Your task to perform on an android device: Go to sound settings Image 0: 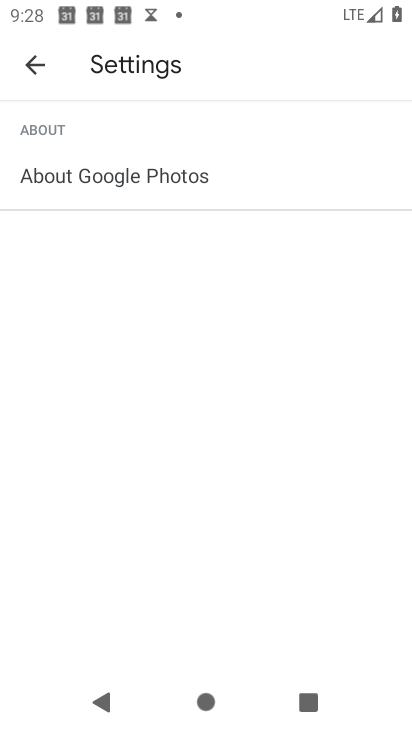
Step 0: press home button
Your task to perform on an android device: Go to sound settings Image 1: 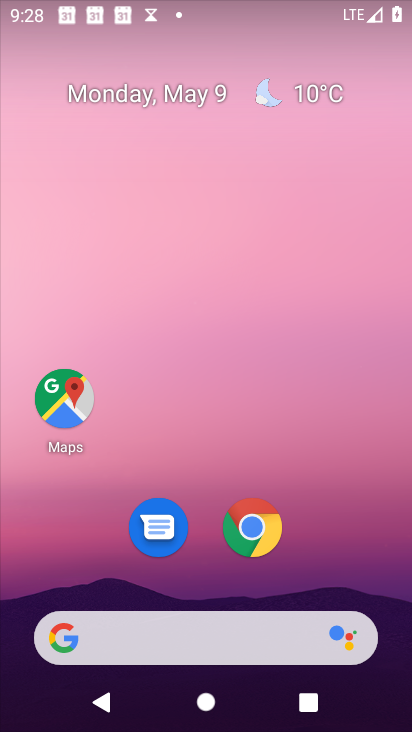
Step 1: drag from (198, 581) to (261, 58)
Your task to perform on an android device: Go to sound settings Image 2: 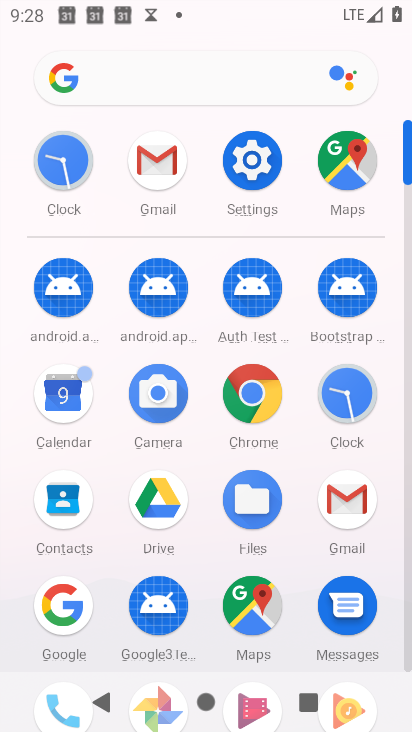
Step 2: click (248, 177)
Your task to perform on an android device: Go to sound settings Image 3: 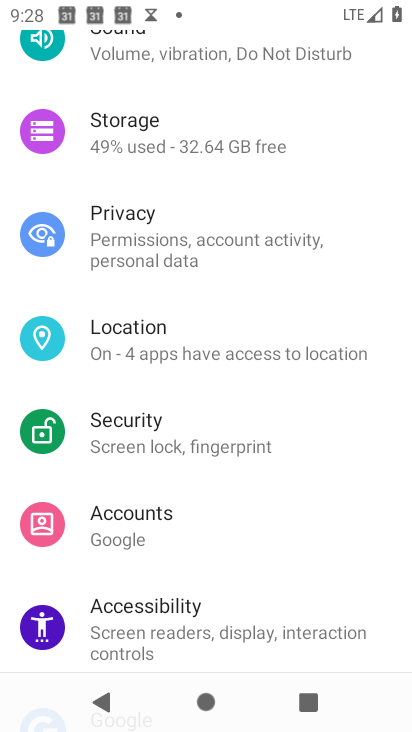
Step 3: drag from (204, 501) to (204, 730)
Your task to perform on an android device: Go to sound settings Image 4: 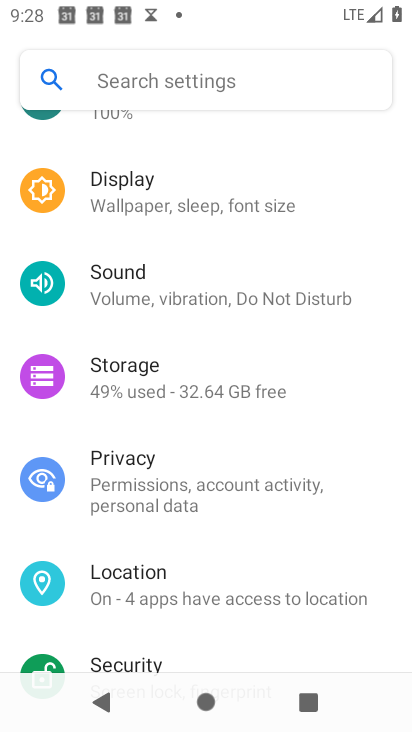
Step 4: click (134, 274)
Your task to perform on an android device: Go to sound settings Image 5: 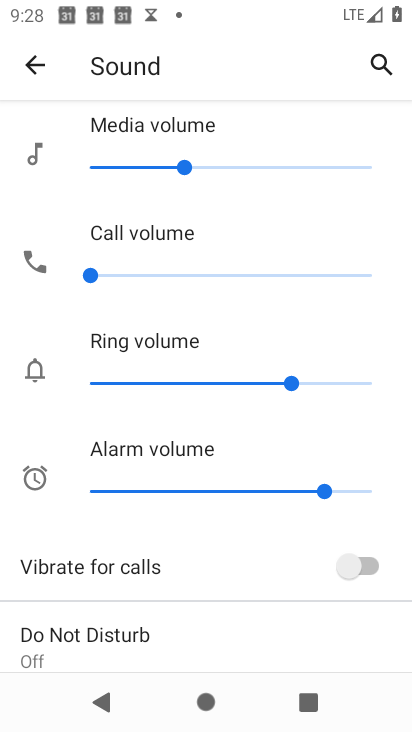
Step 5: task complete